Your task to perform on an android device: Find coffee shops on Maps Image 0: 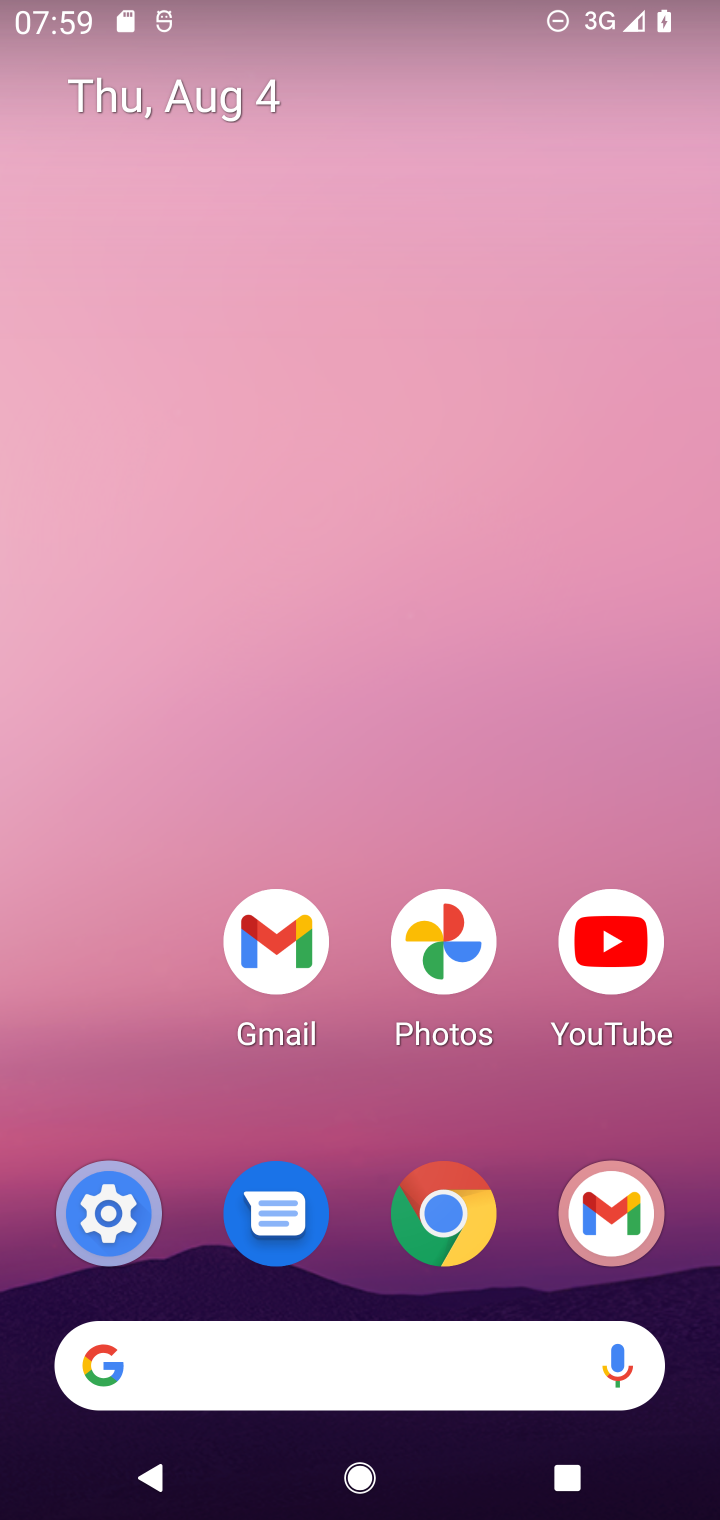
Step 0: press home button
Your task to perform on an android device: Find coffee shops on Maps Image 1: 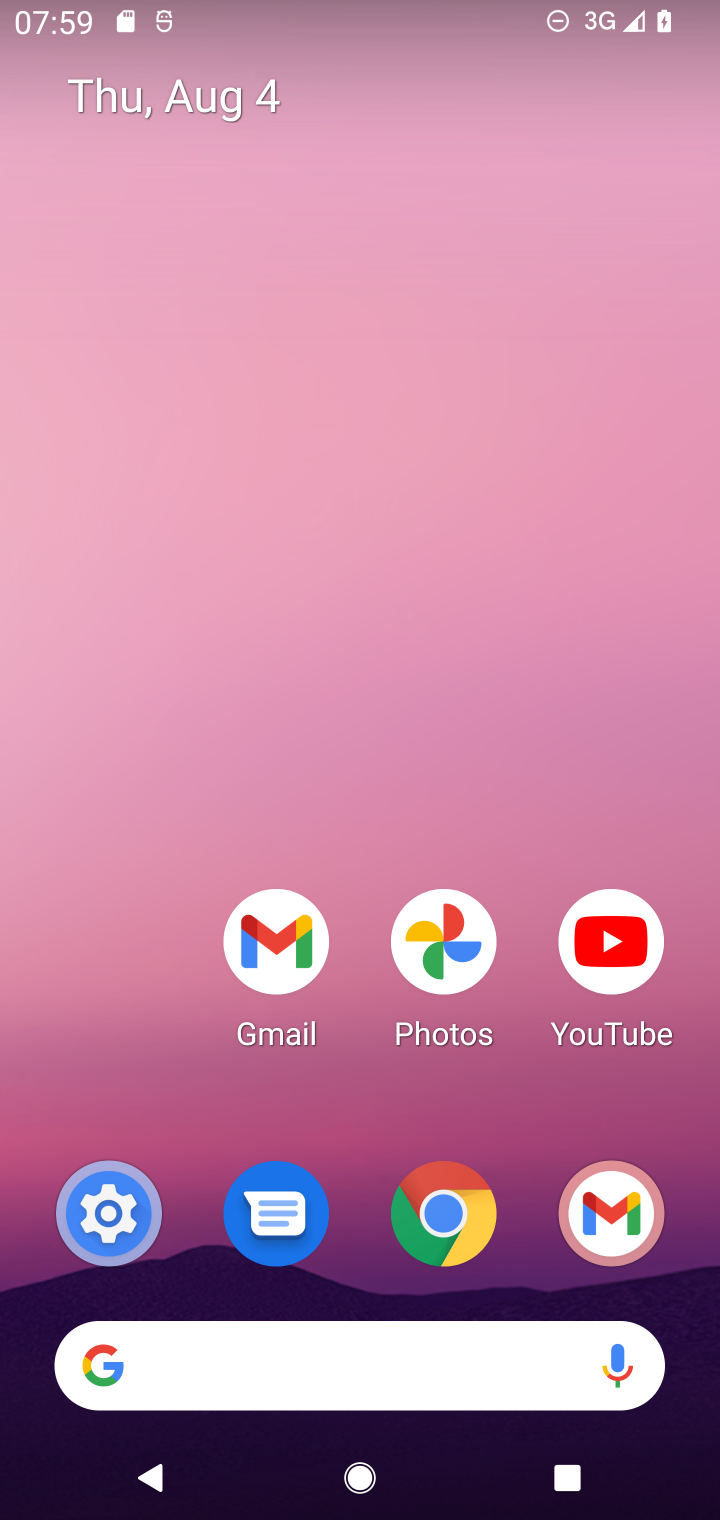
Step 1: click (642, 1096)
Your task to perform on an android device: Find coffee shops on Maps Image 2: 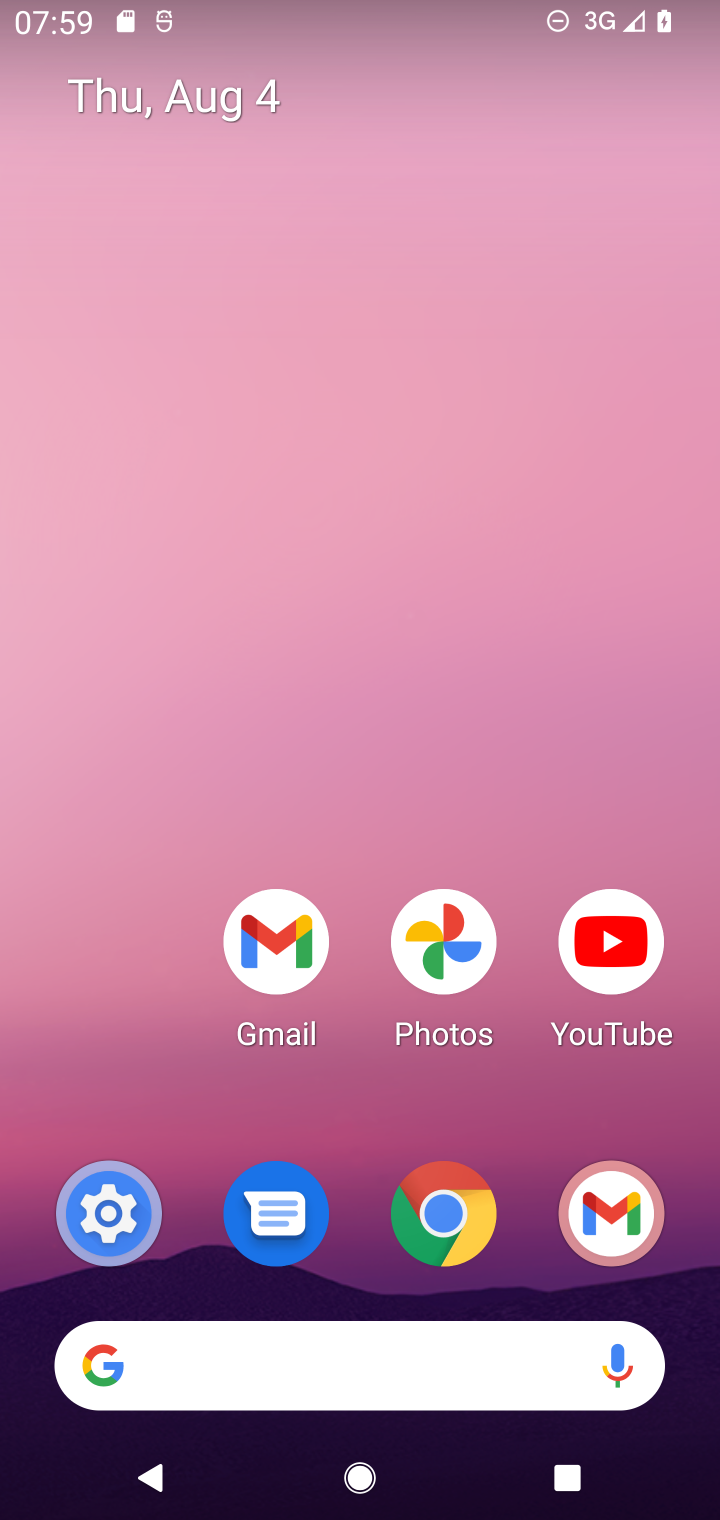
Step 2: drag from (182, 1138) to (205, 561)
Your task to perform on an android device: Find coffee shops on Maps Image 3: 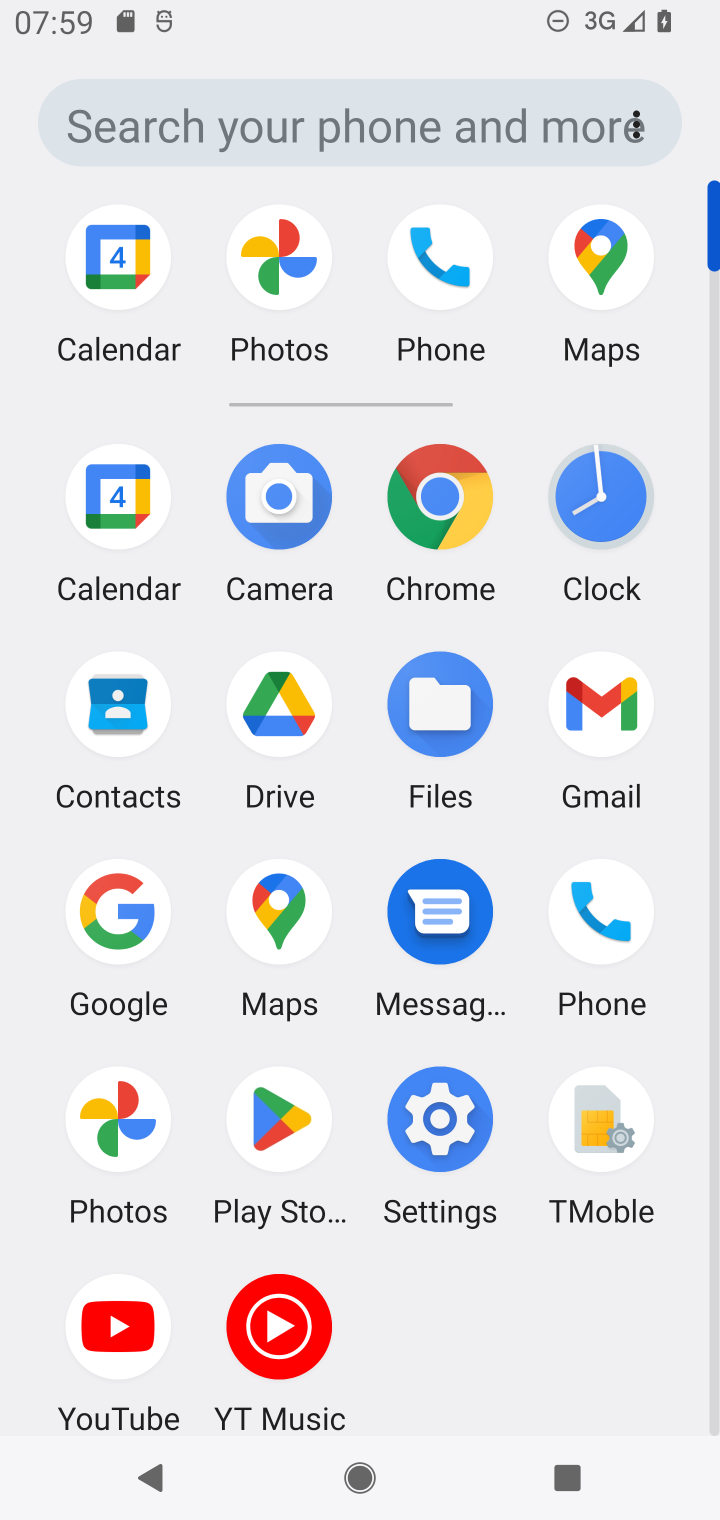
Step 3: click (285, 917)
Your task to perform on an android device: Find coffee shops on Maps Image 4: 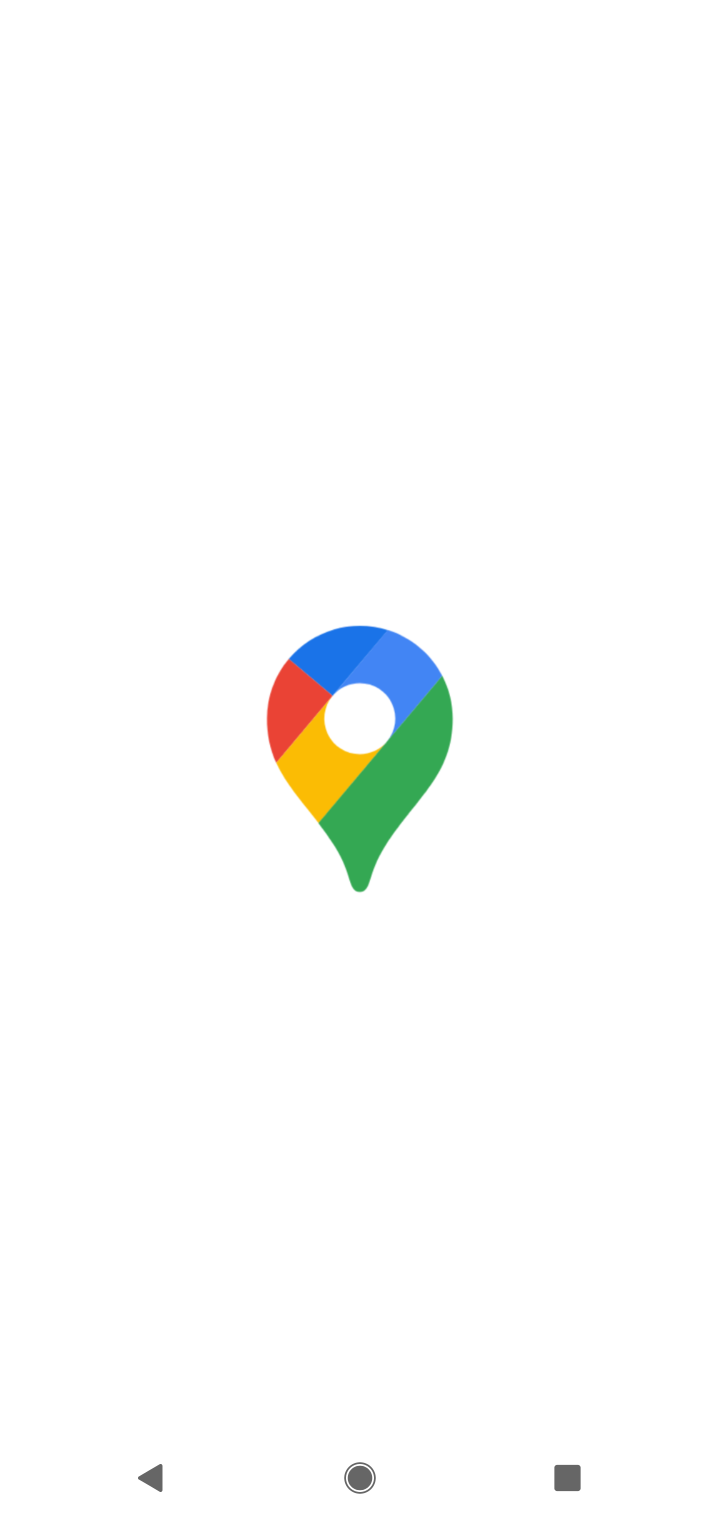
Step 4: task complete